Your task to perform on an android device: turn off smart reply in the gmail app Image 0: 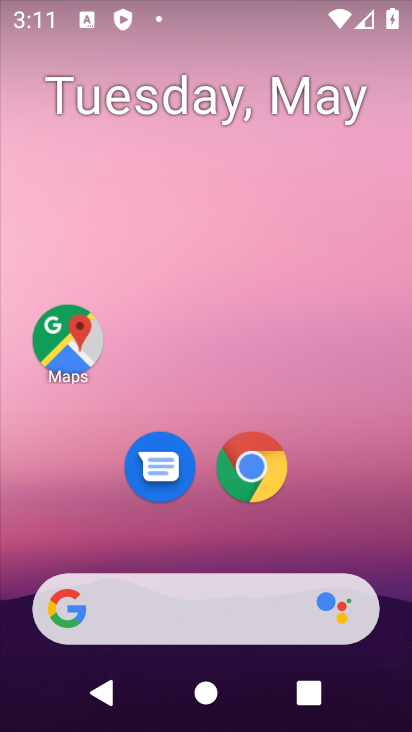
Step 0: task complete